Your task to perform on an android device: Find coffee shops on Maps Image 0: 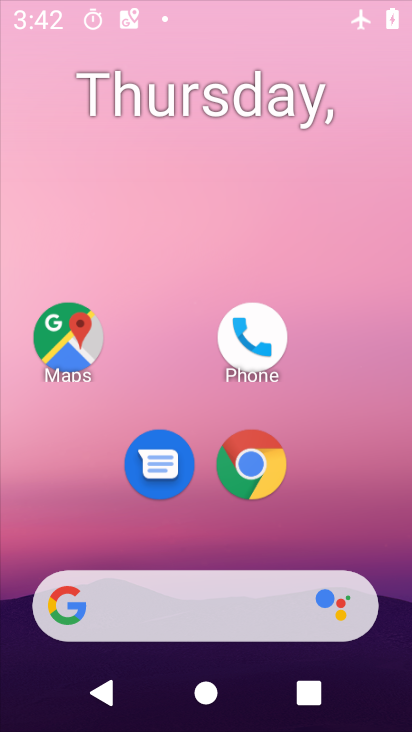
Step 0: click (263, 167)
Your task to perform on an android device: Find coffee shops on Maps Image 1: 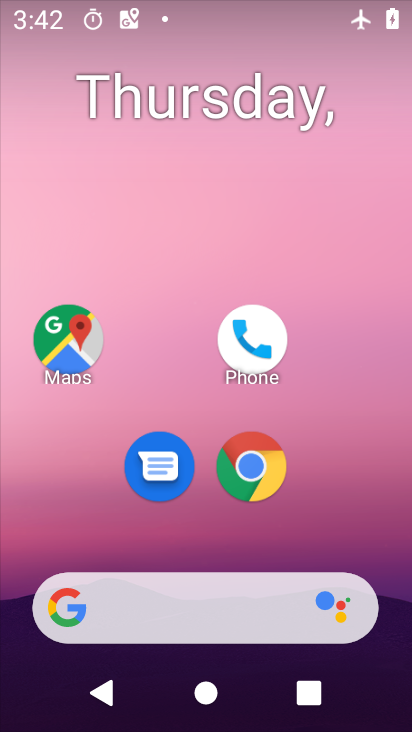
Step 1: drag from (204, 537) to (221, 129)
Your task to perform on an android device: Find coffee shops on Maps Image 2: 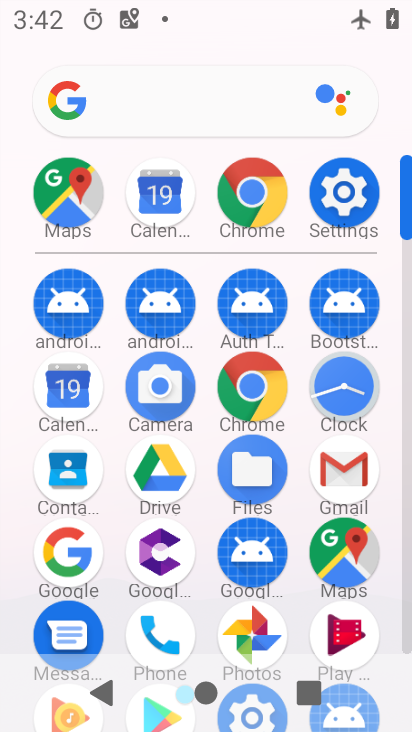
Step 2: click (336, 548)
Your task to perform on an android device: Find coffee shops on Maps Image 3: 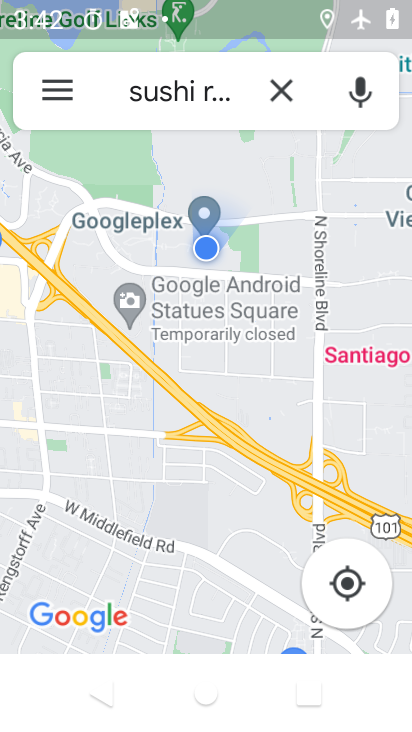
Step 3: click (269, 86)
Your task to perform on an android device: Find coffee shops on Maps Image 4: 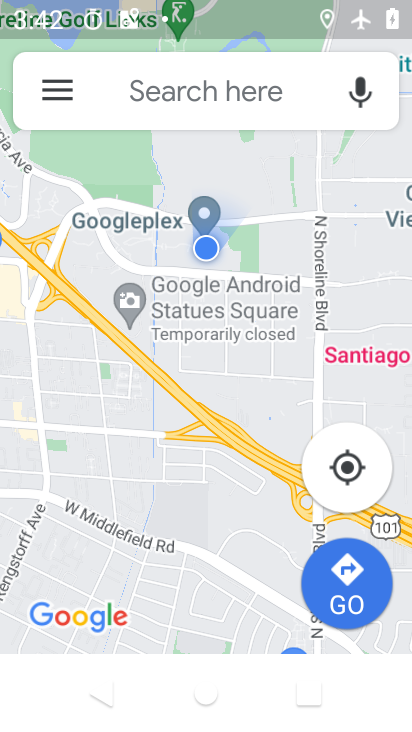
Step 4: click (204, 95)
Your task to perform on an android device: Find coffee shops on Maps Image 5: 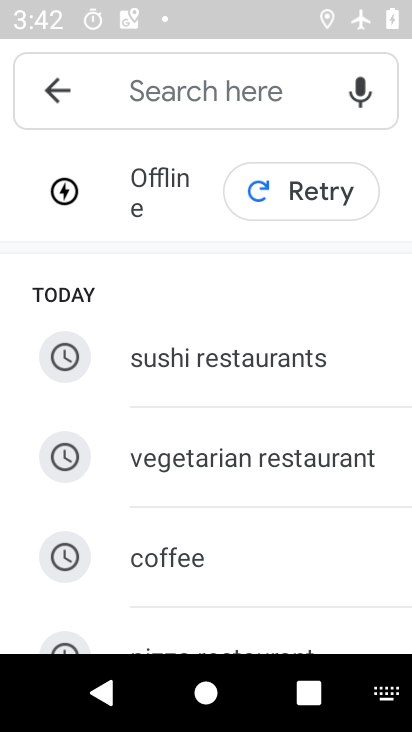
Step 5: click (161, 570)
Your task to perform on an android device: Find coffee shops on Maps Image 6: 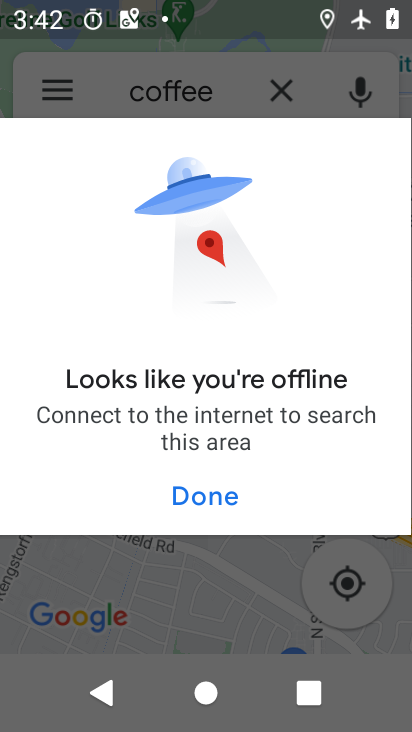
Step 6: drag from (165, 542) to (239, 104)
Your task to perform on an android device: Find coffee shops on Maps Image 7: 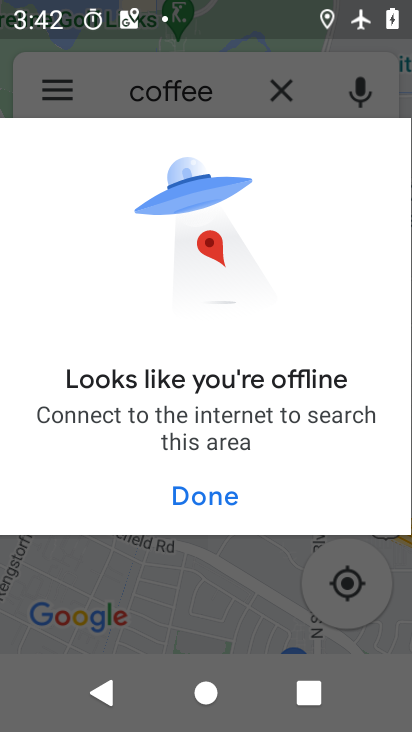
Step 7: click (183, 517)
Your task to perform on an android device: Find coffee shops on Maps Image 8: 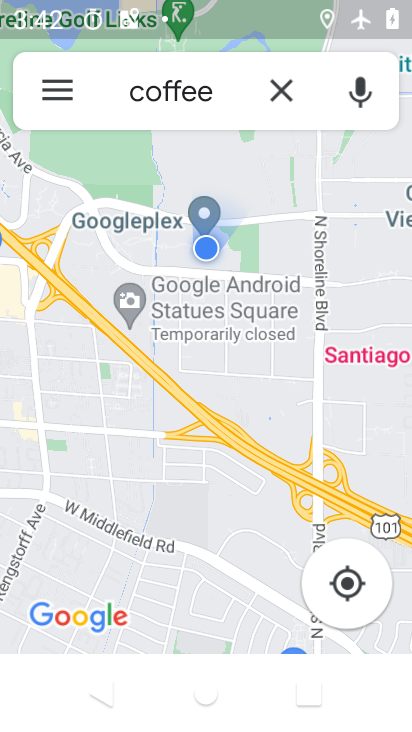
Step 8: task complete